Your task to perform on an android device: turn off javascript in the chrome app Image 0: 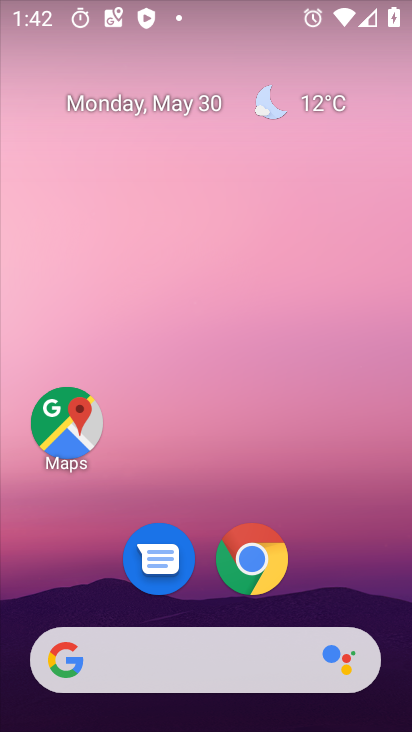
Step 0: click (263, 549)
Your task to perform on an android device: turn off javascript in the chrome app Image 1: 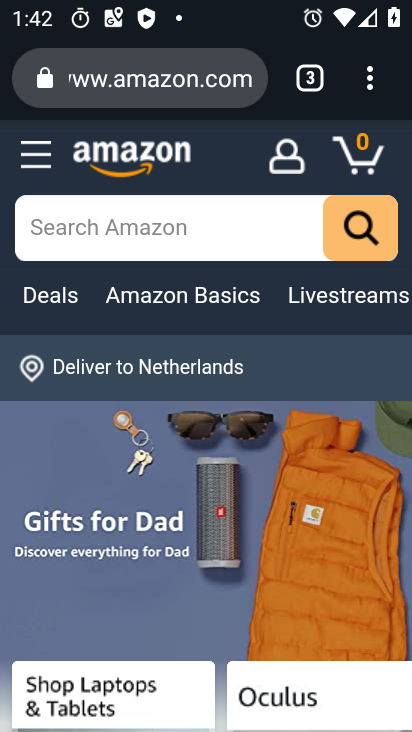
Step 1: drag from (364, 73) to (88, 603)
Your task to perform on an android device: turn off javascript in the chrome app Image 2: 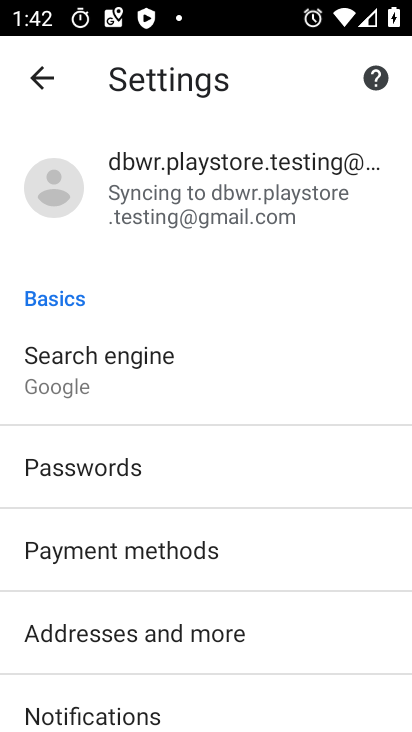
Step 2: drag from (137, 697) to (207, 357)
Your task to perform on an android device: turn off javascript in the chrome app Image 3: 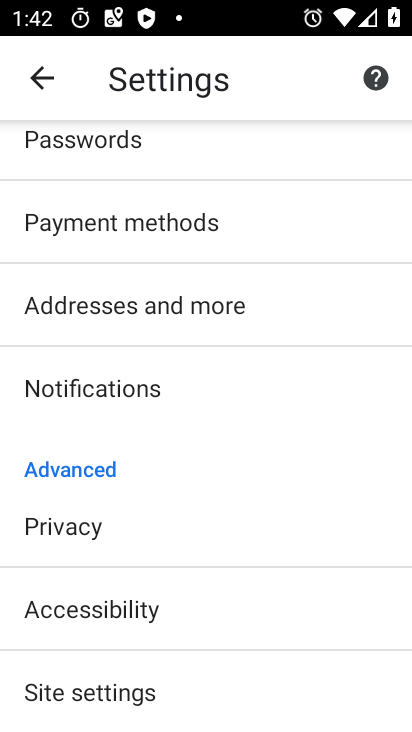
Step 3: click (119, 696)
Your task to perform on an android device: turn off javascript in the chrome app Image 4: 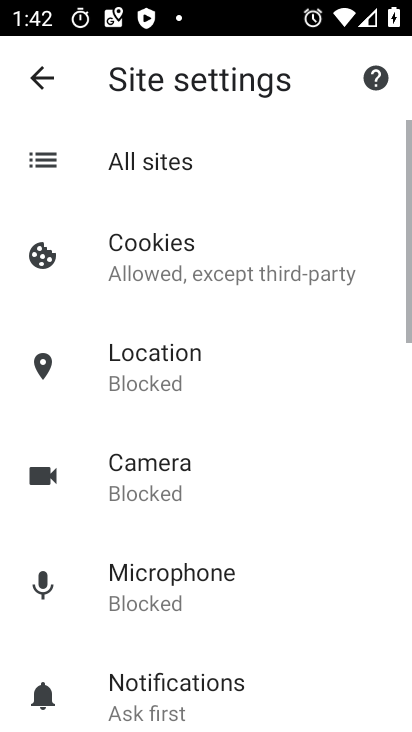
Step 4: drag from (143, 658) to (267, 91)
Your task to perform on an android device: turn off javascript in the chrome app Image 5: 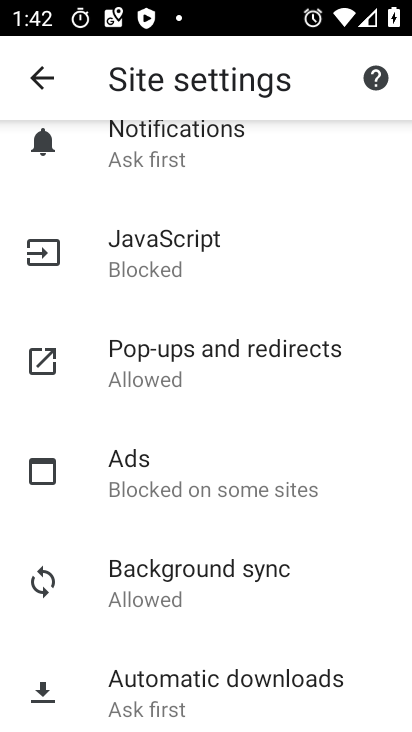
Step 5: drag from (170, 629) to (212, 662)
Your task to perform on an android device: turn off javascript in the chrome app Image 6: 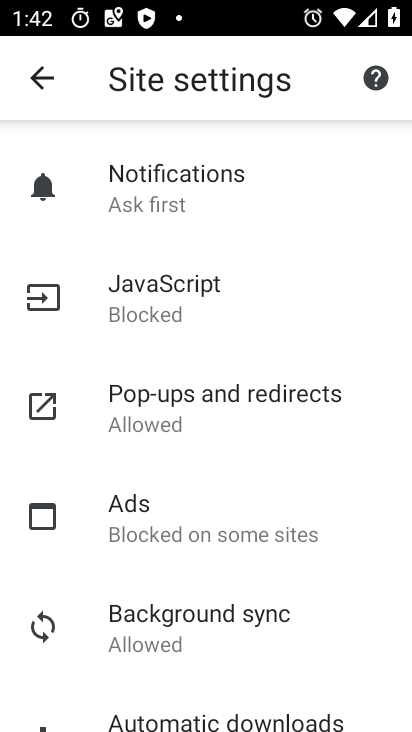
Step 6: click (141, 304)
Your task to perform on an android device: turn off javascript in the chrome app Image 7: 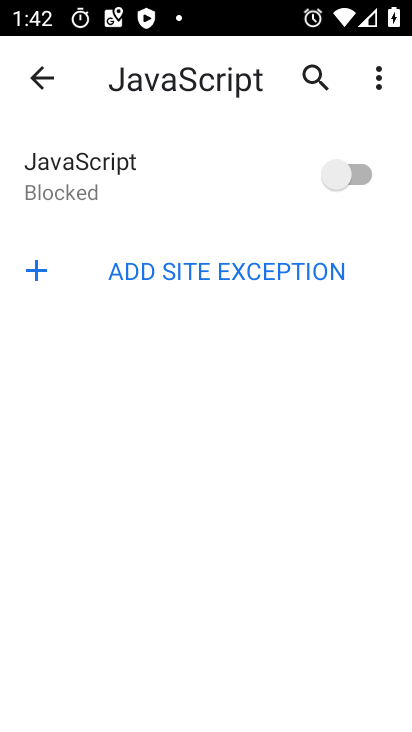
Step 7: task complete